Your task to perform on an android device: open app "Messages" (install if not already installed) Image 0: 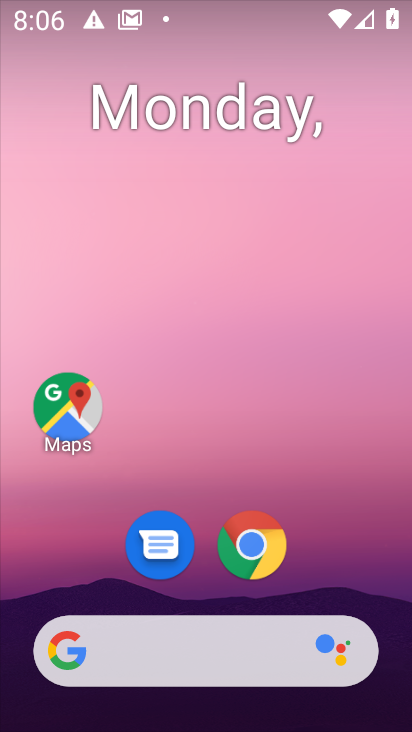
Step 0: drag from (388, 569) to (298, 290)
Your task to perform on an android device: open app "Messages" (install if not already installed) Image 1: 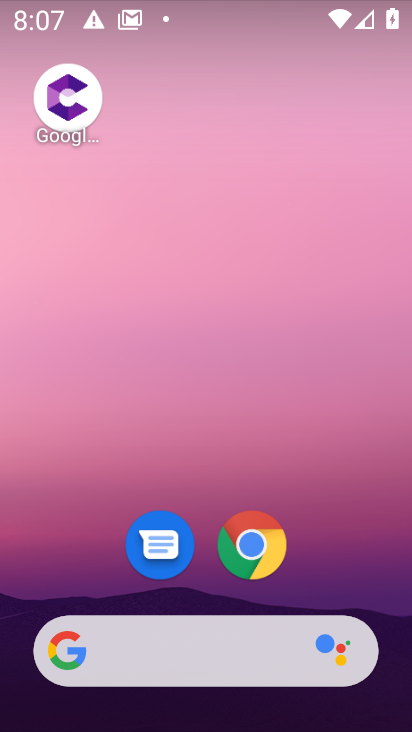
Step 1: drag from (371, 583) to (286, 264)
Your task to perform on an android device: open app "Messages" (install if not already installed) Image 2: 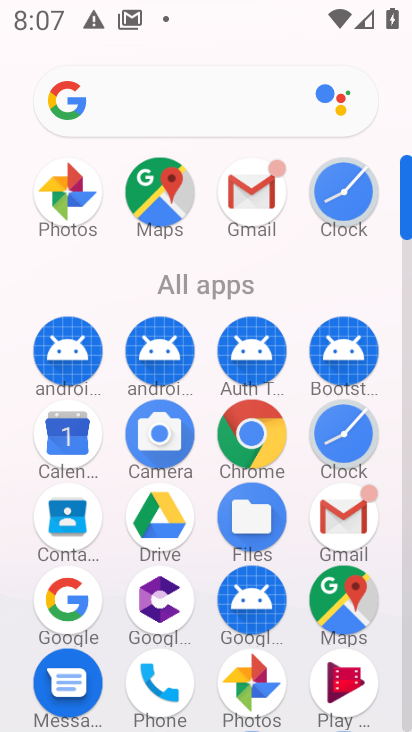
Step 2: click (65, 682)
Your task to perform on an android device: open app "Messages" (install if not already installed) Image 3: 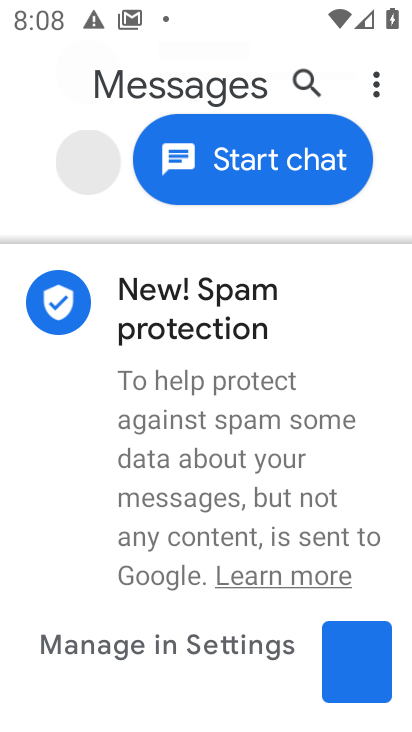
Step 3: task complete